Your task to perform on an android device: empty trash in the gmail app Image 0: 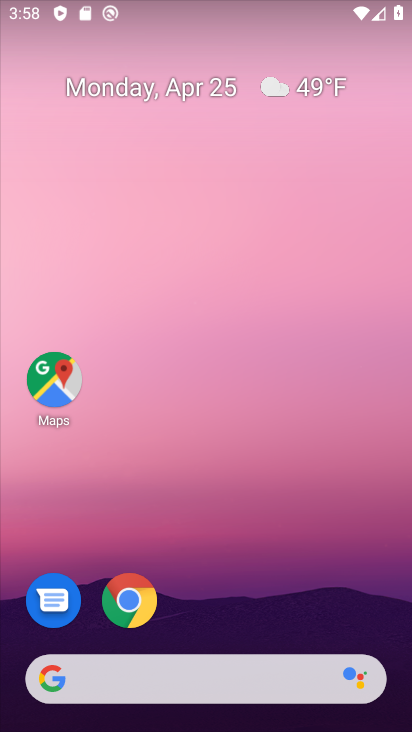
Step 0: drag from (278, 579) to (144, 32)
Your task to perform on an android device: empty trash in the gmail app Image 1: 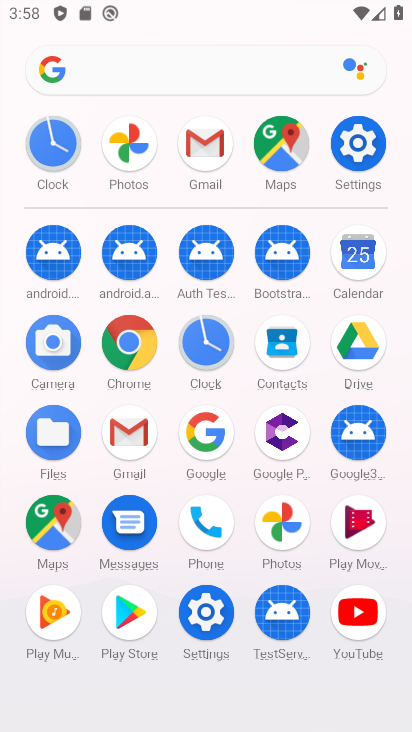
Step 1: click (208, 130)
Your task to perform on an android device: empty trash in the gmail app Image 2: 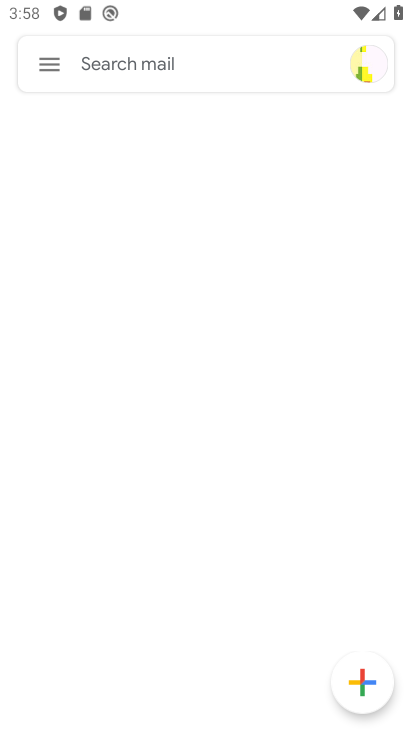
Step 2: click (44, 55)
Your task to perform on an android device: empty trash in the gmail app Image 3: 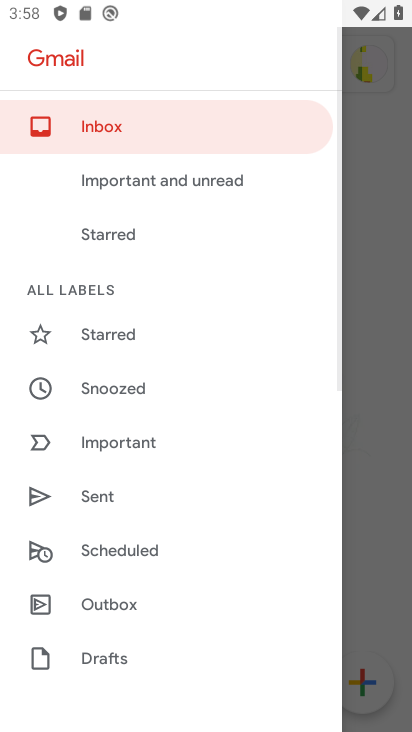
Step 3: drag from (197, 601) to (165, 150)
Your task to perform on an android device: empty trash in the gmail app Image 4: 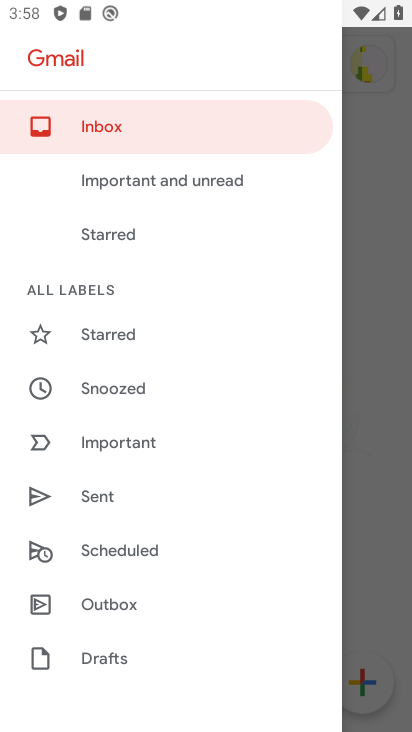
Step 4: drag from (143, 583) to (219, 180)
Your task to perform on an android device: empty trash in the gmail app Image 5: 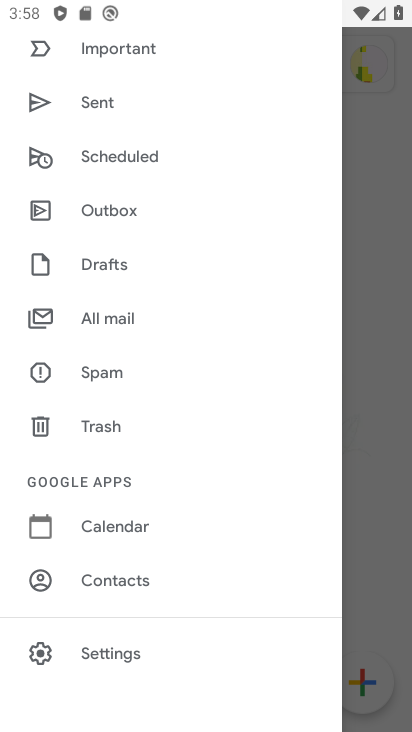
Step 5: click (117, 426)
Your task to perform on an android device: empty trash in the gmail app Image 6: 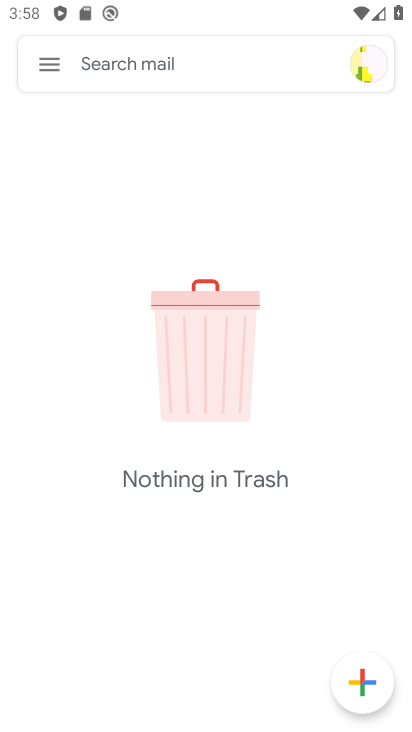
Step 6: task complete